Your task to perform on an android device: turn on priority inbox in the gmail app Image 0: 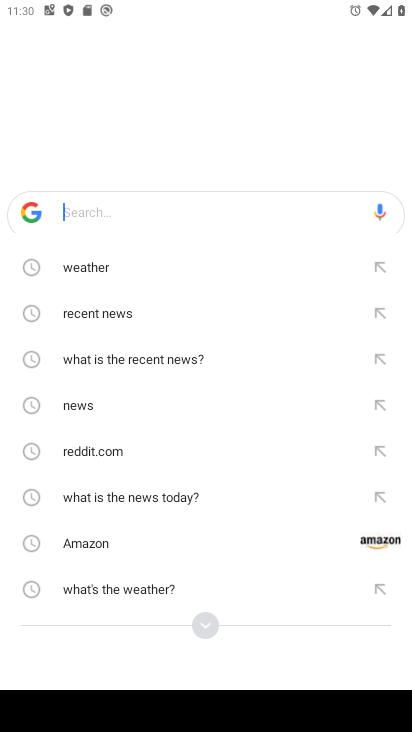
Step 0: press home button
Your task to perform on an android device: turn on priority inbox in the gmail app Image 1: 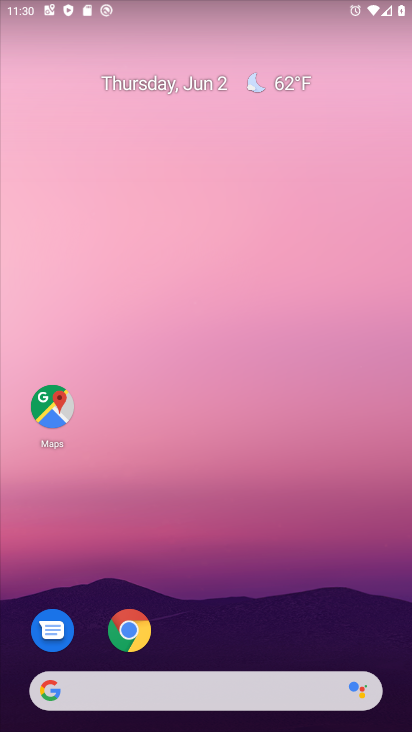
Step 1: drag from (144, 683) to (406, 167)
Your task to perform on an android device: turn on priority inbox in the gmail app Image 2: 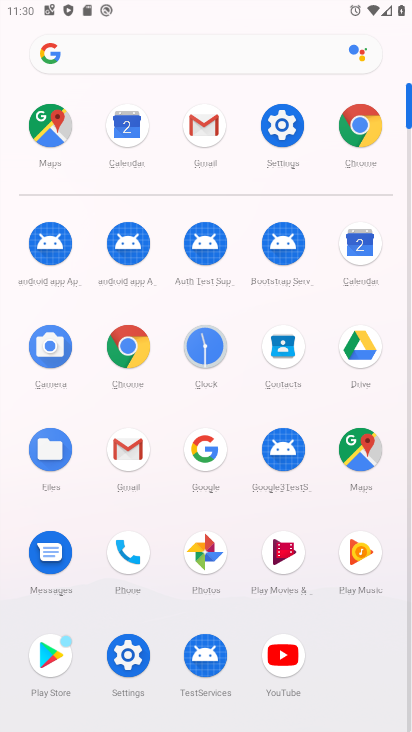
Step 2: click (211, 126)
Your task to perform on an android device: turn on priority inbox in the gmail app Image 3: 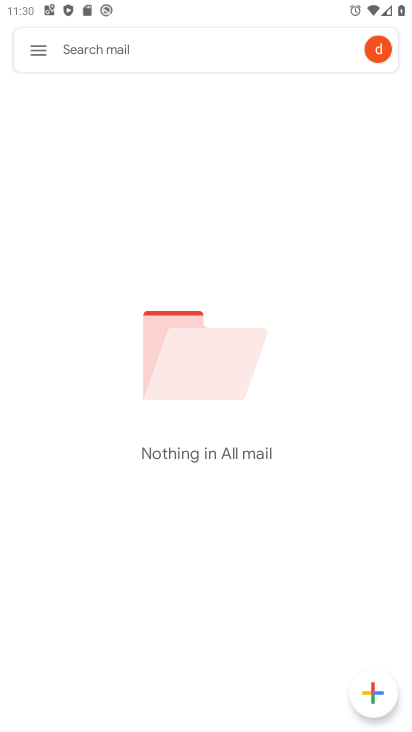
Step 3: click (40, 50)
Your task to perform on an android device: turn on priority inbox in the gmail app Image 4: 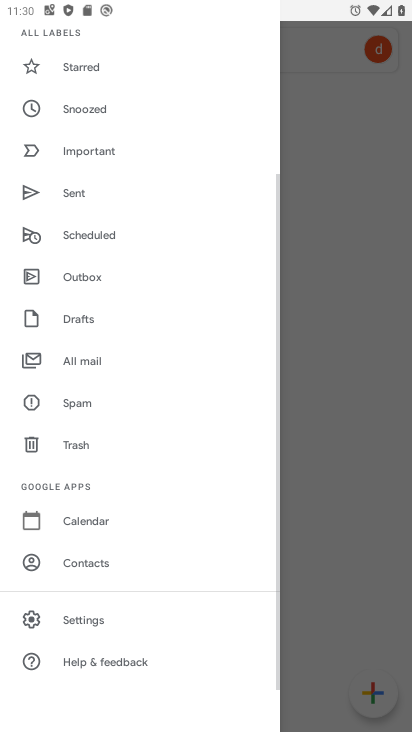
Step 4: drag from (179, 577) to (251, 217)
Your task to perform on an android device: turn on priority inbox in the gmail app Image 5: 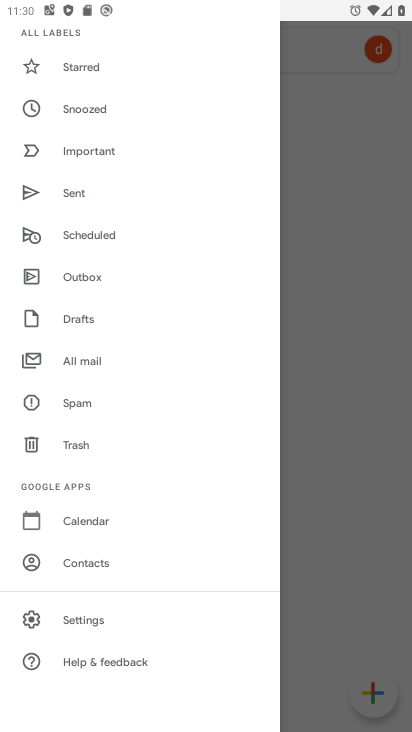
Step 5: click (94, 618)
Your task to perform on an android device: turn on priority inbox in the gmail app Image 6: 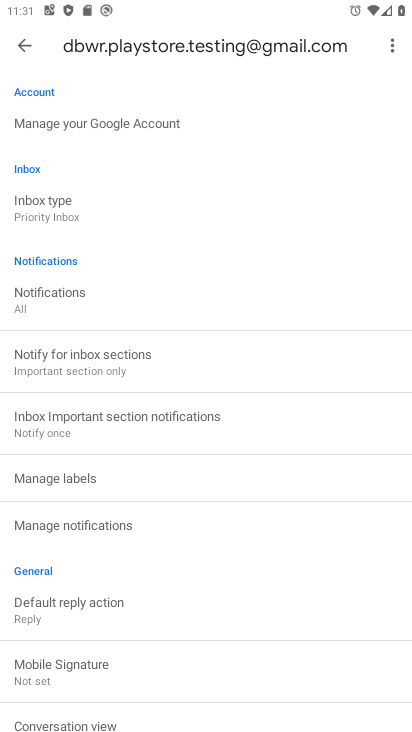
Step 6: click (66, 221)
Your task to perform on an android device: turn on priority inbox in the gmail app Image 7: 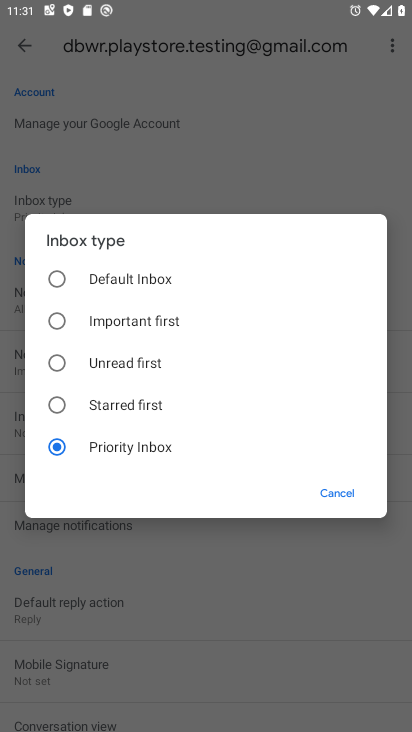
Step 7: task complete